Your task to perform on an android device: Show me recent news Image 0: 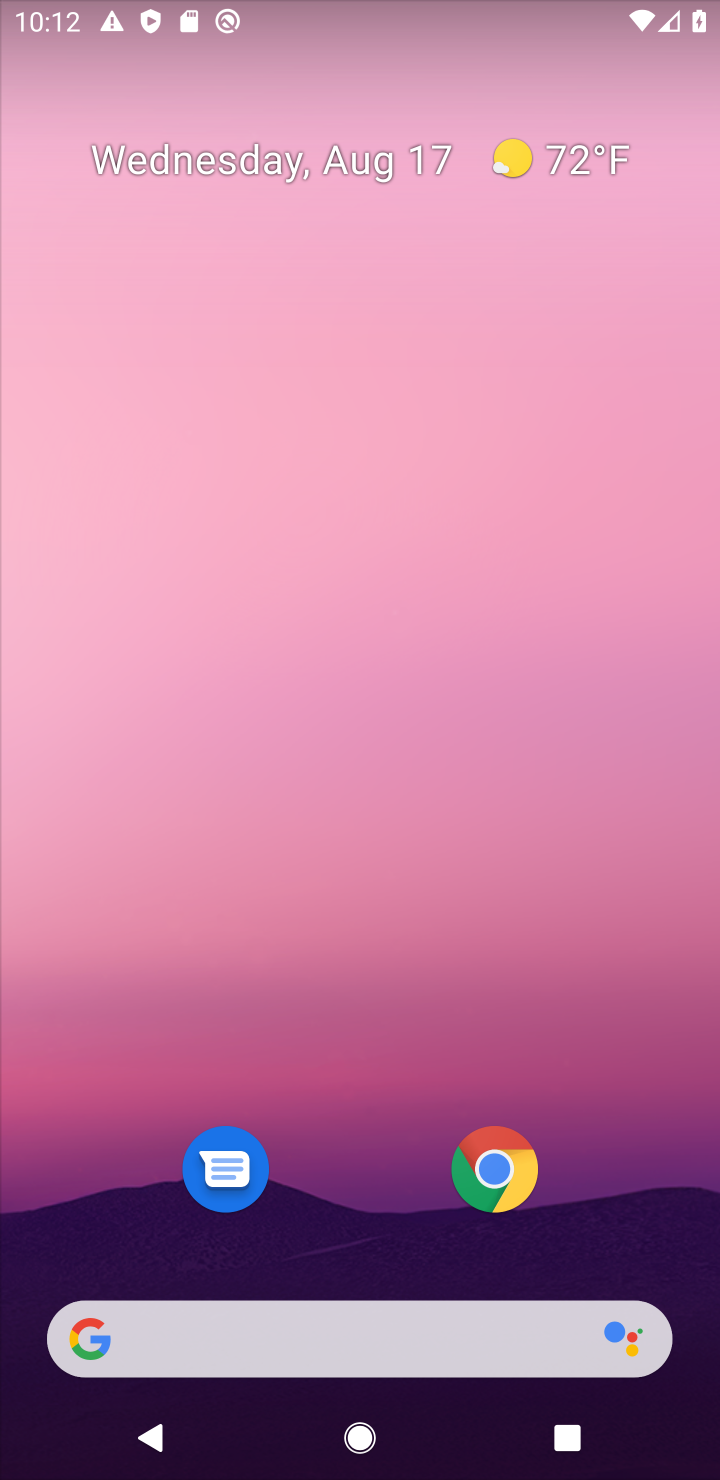
Step 0: drag from (379, 1132) to (212, 71)
Your task to perform on an android device: Show me recent news Image 1: 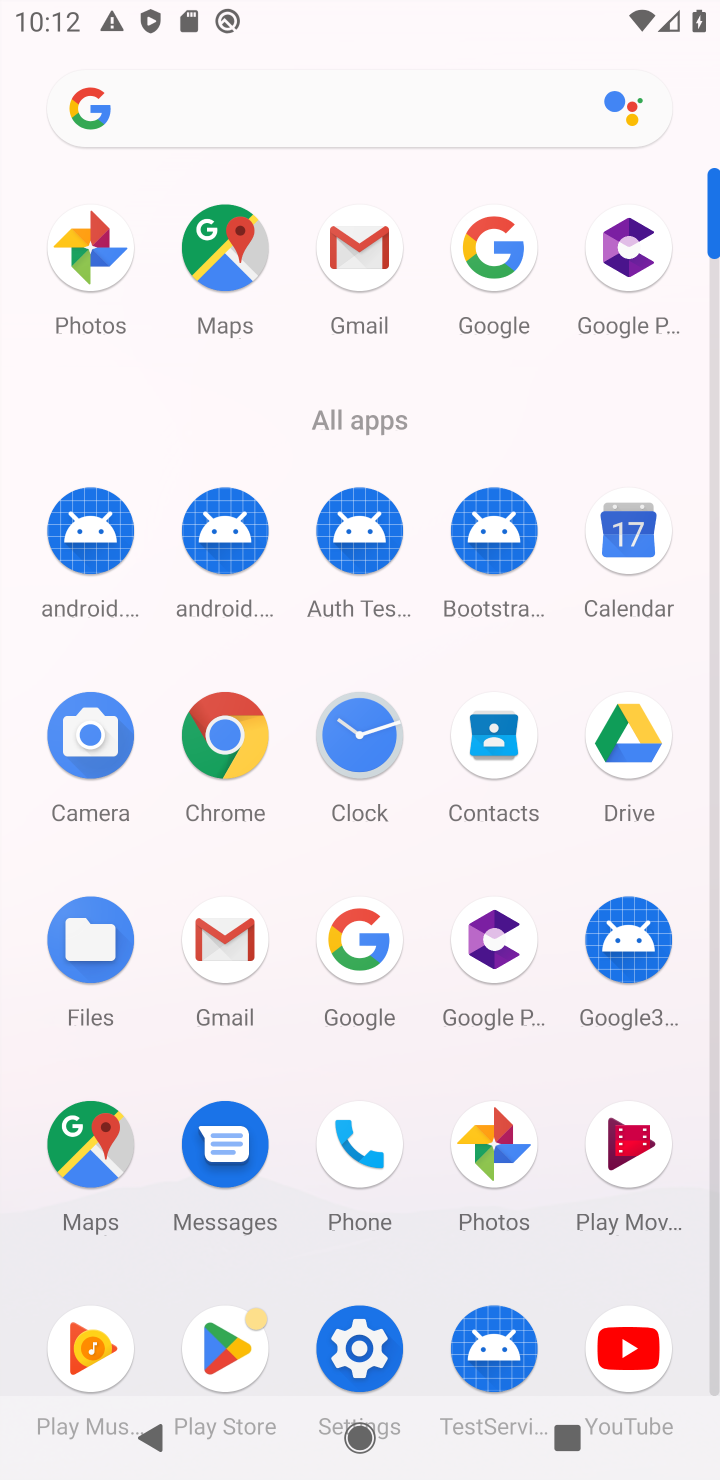
Step 1: task complete